Your task to perform on an android device: remove spam from my inbox in the gmail app Image 0: 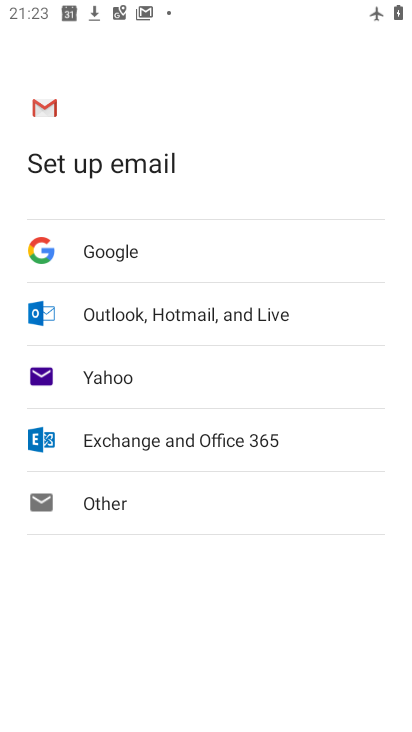
Step 0: press home button
Your task to perform on an android device: remove spam from my inbox in the gmail app Image 1: 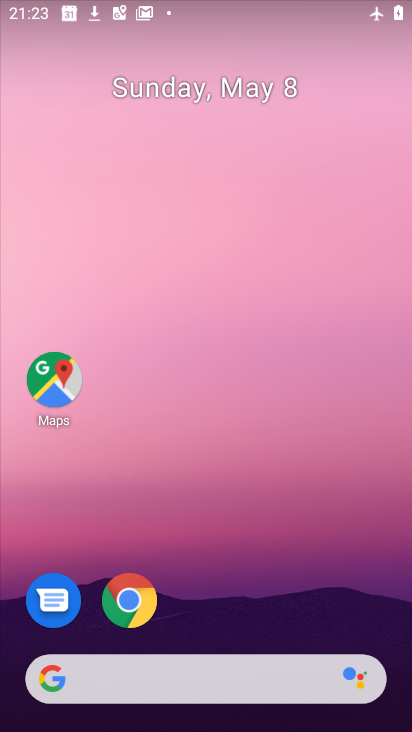
Step 1: drag from (290, 704) to (199, 139)
Your task to perform on an android device: remove spam from my inbox in the gmail app Image 2: 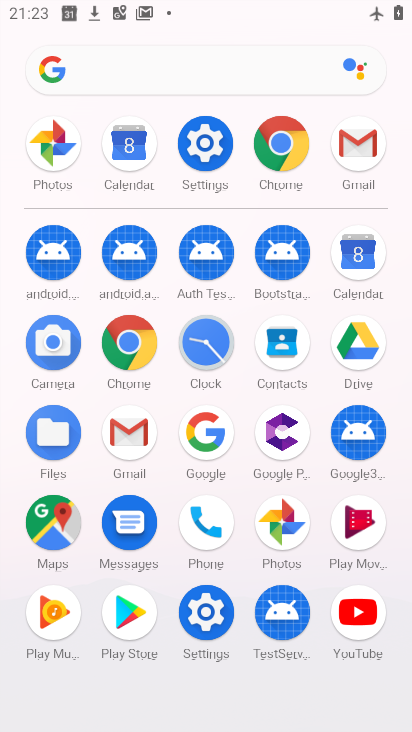
Step 2: click (358, 154)
Your task to perform on an android device: remove spam from my inbox in the gmail app Image 3: 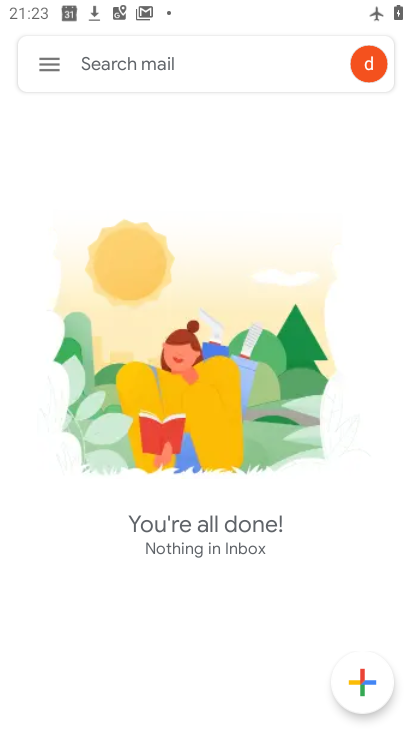
Step 3: click (49, 80)
Your task to perform on an android device: remove spam from my inbox in the gmail app Image 4: 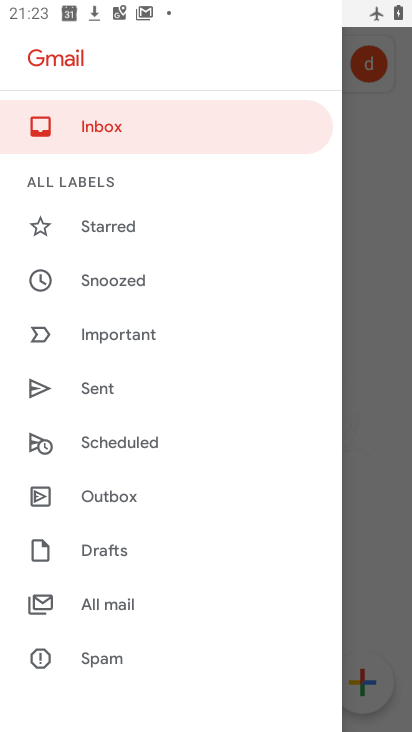
Step 4: click (122, 645)
Your task to perform on an android device: remove spam from my inbox in the gmail app Image 5: 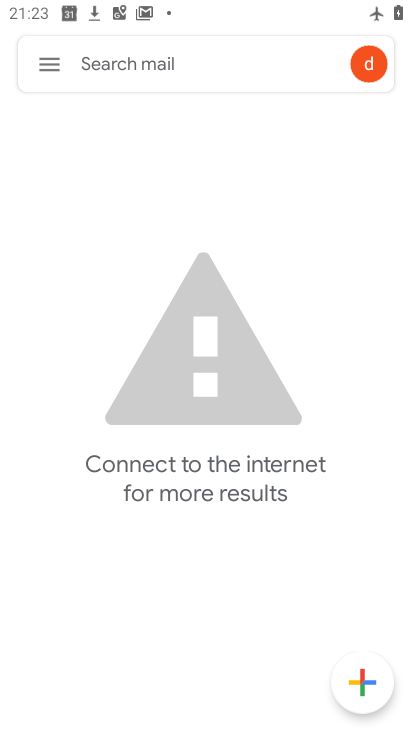
Step 5: task complete